Your task to perform on an android device: see tabs open on other devices in the chrome app Image 0: 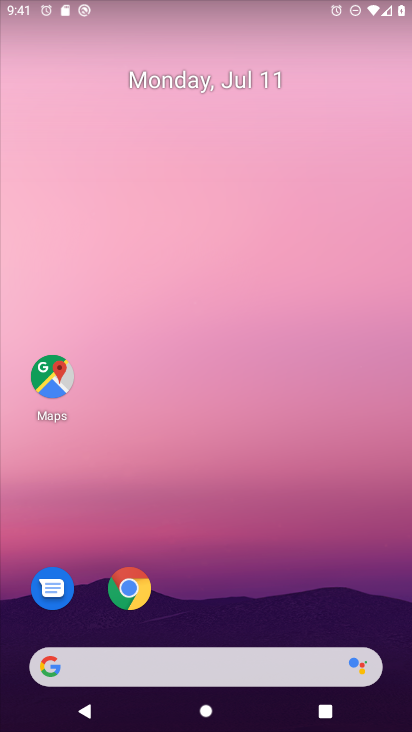
Step 0: click (125, 594)
Your task to perform on an android device: see tabs open on other devices in the chrome app Image 1: 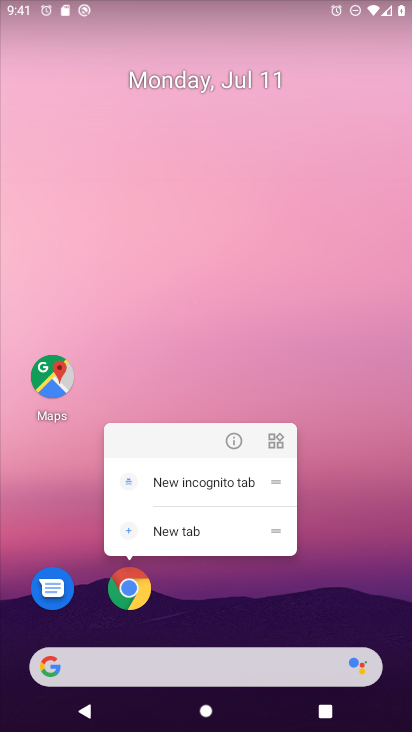
Step 1: click (126, 592)
Your task to perform on an android device: see tabs open on other devices in the chrome app Image 2: 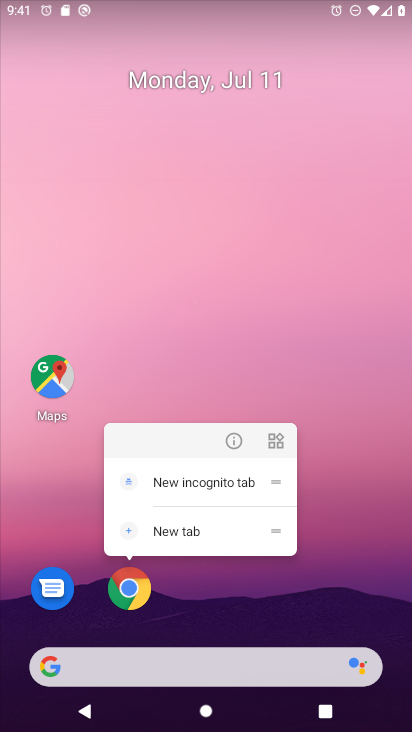
Step 2: click (126, 589)
Your task to perform on an android device: see tabs open on other devices in the chrome app Image 3: 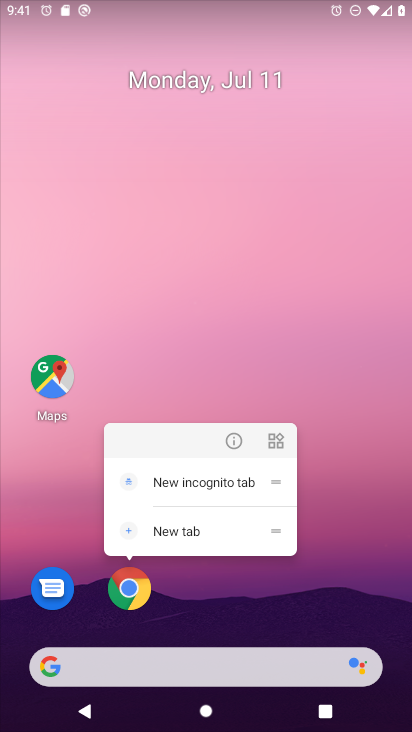
Step 3: click (127, 592)
Your task to perform on an android device: see tabs open on other devices in the chrome app Image 4: 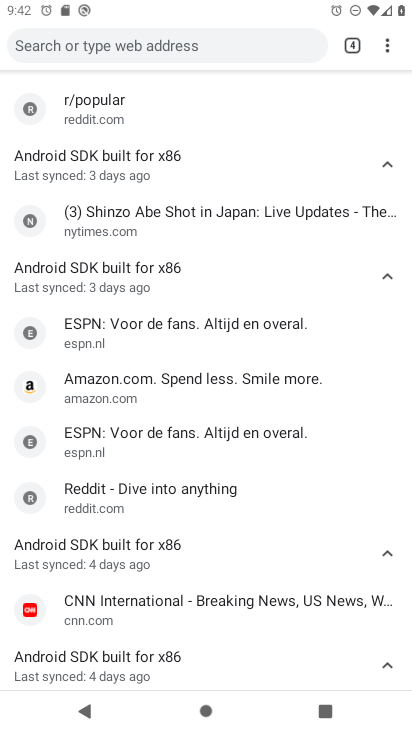
Step 4: task complete